Your task to perform on an android device: change the clock display to show seconds Image 0: 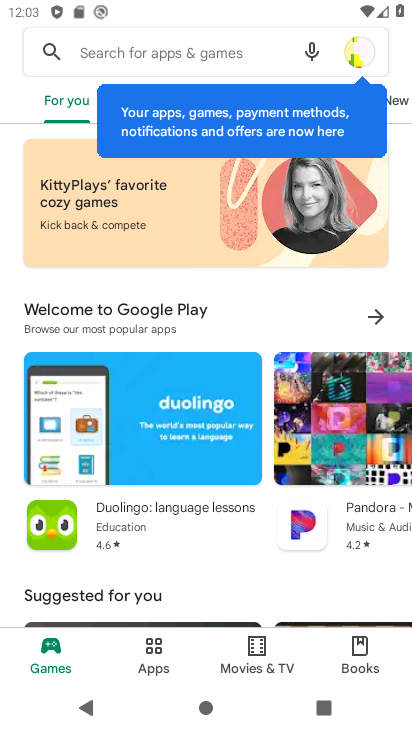
Step 0: press home button
Your task to perform on an android device: change the clock display to show seconds Image 1: 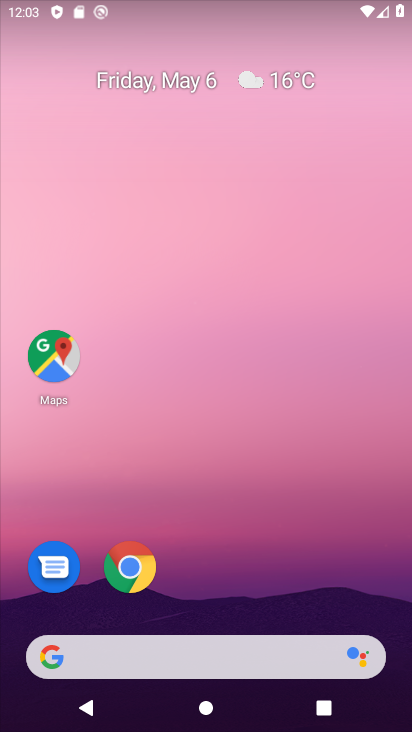
Step 1: drag from (258, 541) to (299, 76)
Your task to perform on an android device: change the clock display to show seconds Image 2: 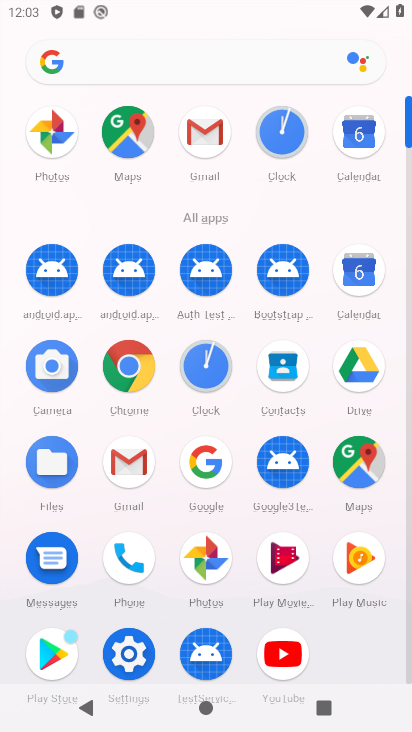
Step 2: click (298, 149)
Your task to perform on an android device: change the clock display to show seconds Image 3: 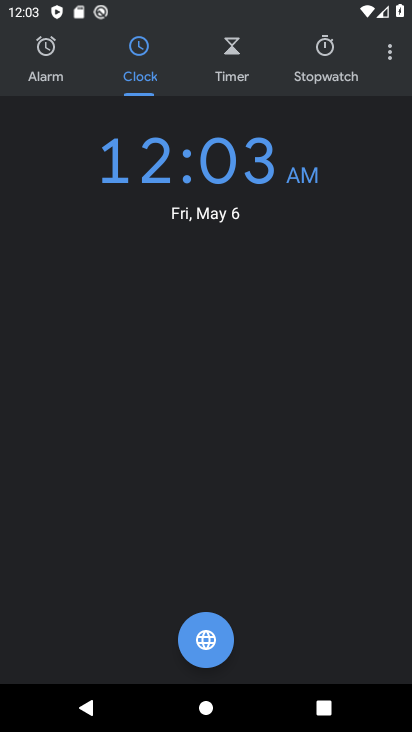
Step 3: click (393, 63)
Your task to perform on an android device: change the clock display to show seconds Image 4: 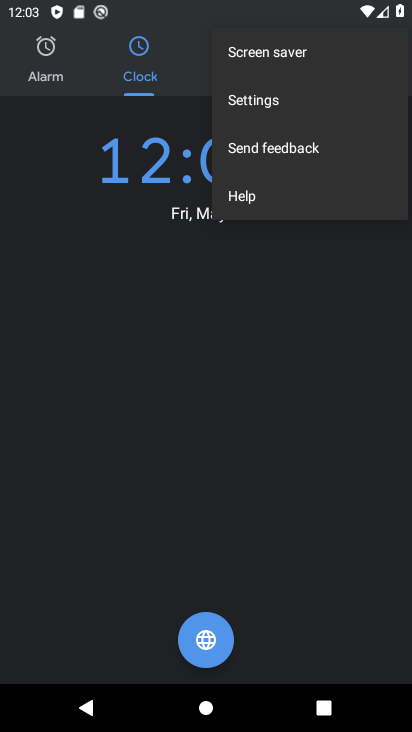
Step 4: click (265, 113)
Your task to perform on an android device: change the clock display to show seconds Image 5: 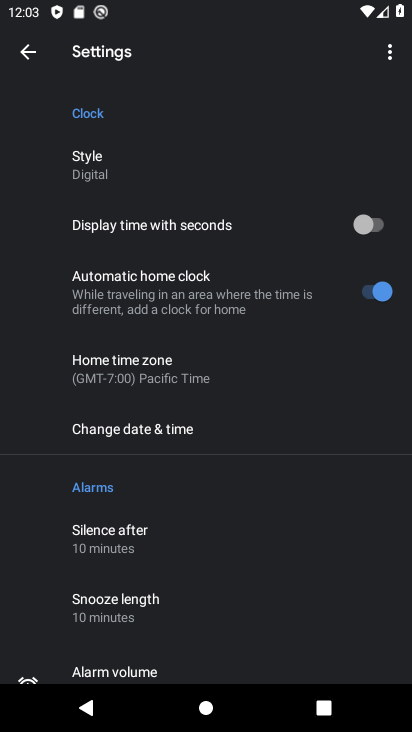
Step 5: click (97, 166)
Your task to perform on an android device: change the clock display to show seconds Image 6: 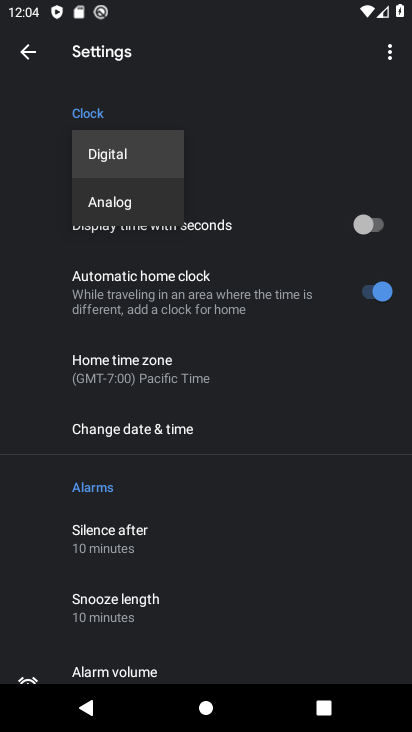
Step 6: click (376, 233)
Your task to perform on an android device: change the clock display to show seconds Image 7: 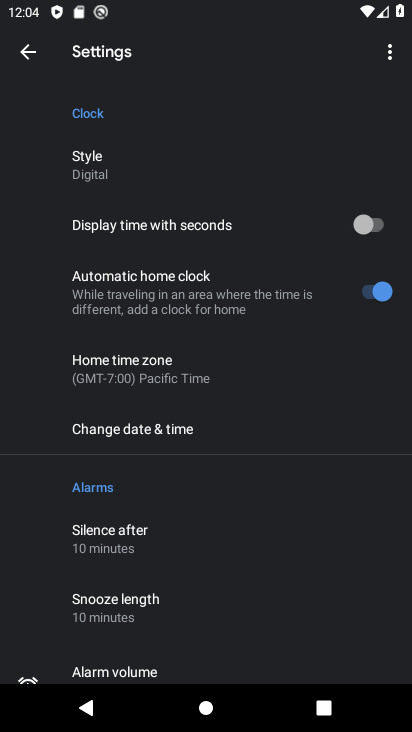
Step 7: click (370, 225)
Your task to perform on an android device: change the clock display to show seconds Image 8: 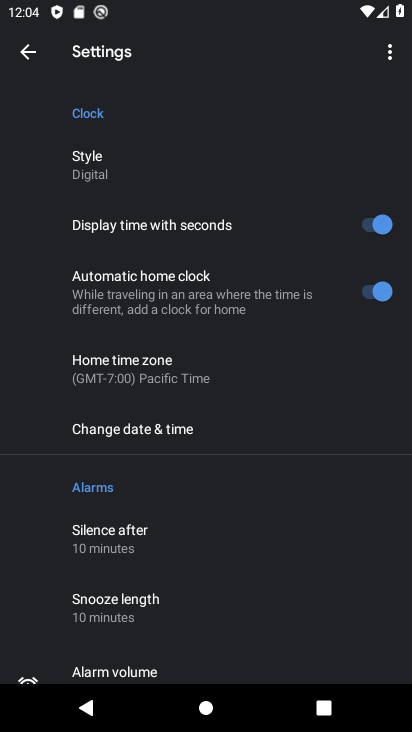
Step 8: task complete